Your task to perform on an android device: toggle notifications settings in the gmail app Image 0: 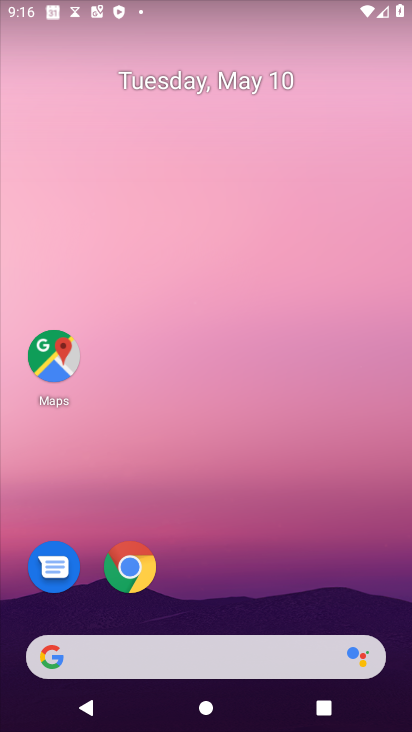
Step 0: press home button
Your task to perform on an android device: toggle notifications settings in the gmail app Image 1: 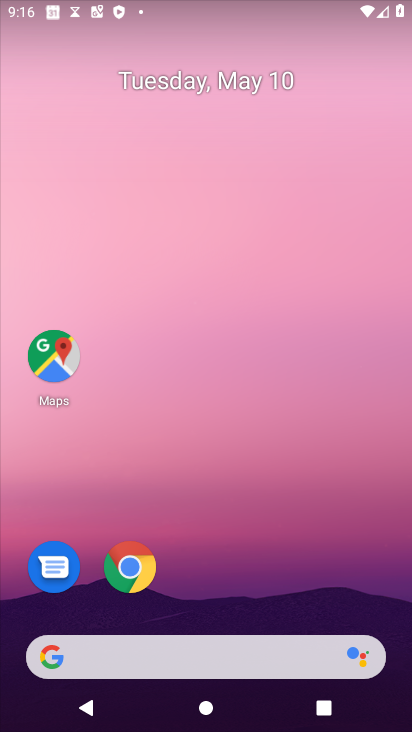
Step 1: drag from (21, 340) to (178, 163)
Your task to perform on an android device: toggle notifications settings in the gmail app Image 2: 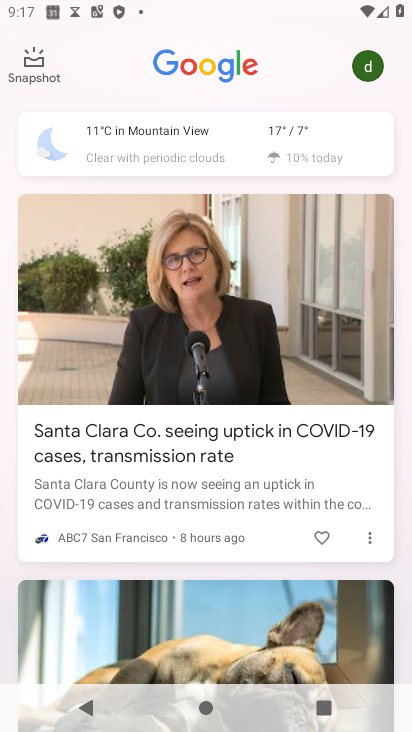
Step 2: press home button
Your task to perform on an android device: toggle notifications settings in the gmail app Image 3: 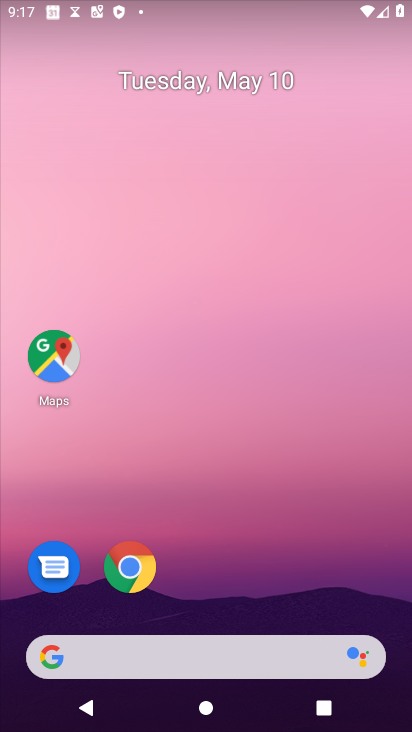
Step 3: drag from (5, 574) to (154, 172)
Your task to perform on an android device: toggle notifications settings in the gmail app Image 4: 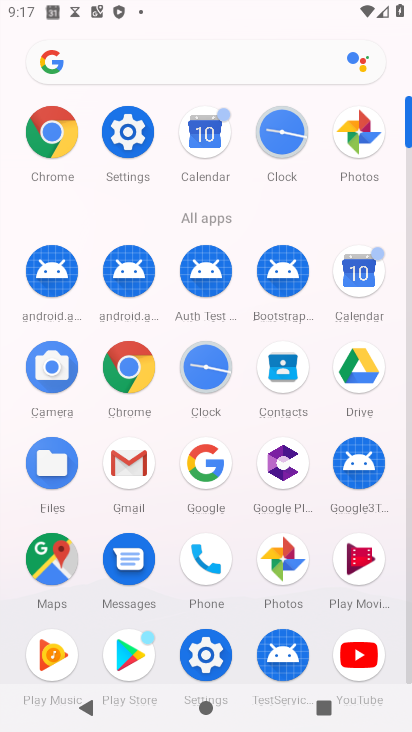
Step 4: click (123, 468)
Your task to perform on an android device: toggle notifications settings in the gmail app Image 5: 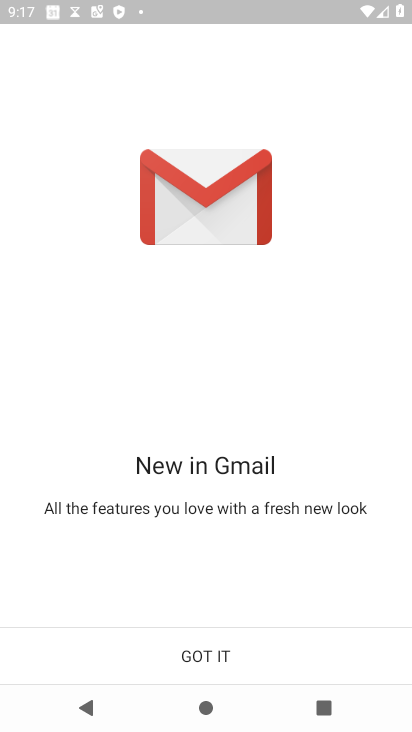
Step 5: click (218, 667)
Your task to perform on an android device: toggle notifications settings in the gmail app Image 6: 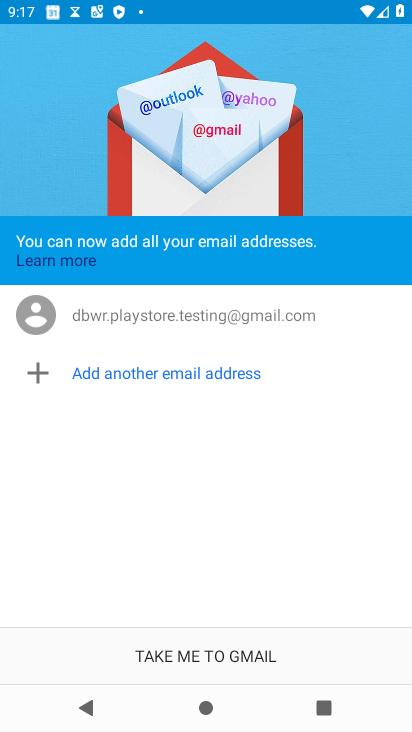
Step 6: click (185, 651)
Your task to perform on an android device: toggle notifications settings in the gmail app Image 7: 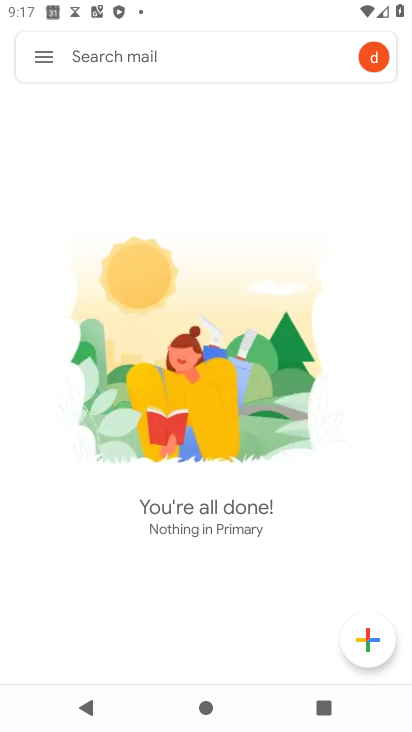
Step 7: click (38, 52)
Your task to perform on an android device: toggle notifications settings in the gmail app Image 8: 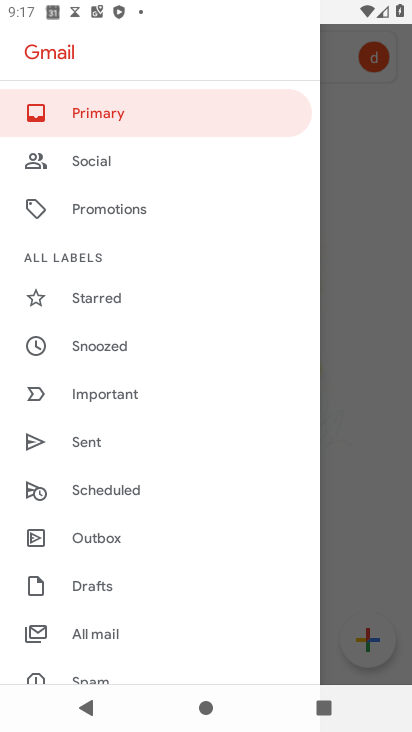
Step 8: drag from (105, 657) to (158, 157)
Your task to perform on an android device: toggle notifications settings in the gmail app Image 9: 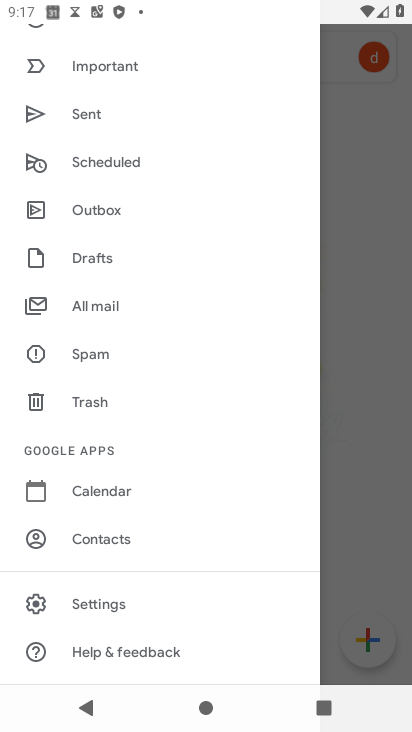
Step 9: click (85, 596)
Your task to perform on an android device: toggle notifications settings in the gmail app Image 10: 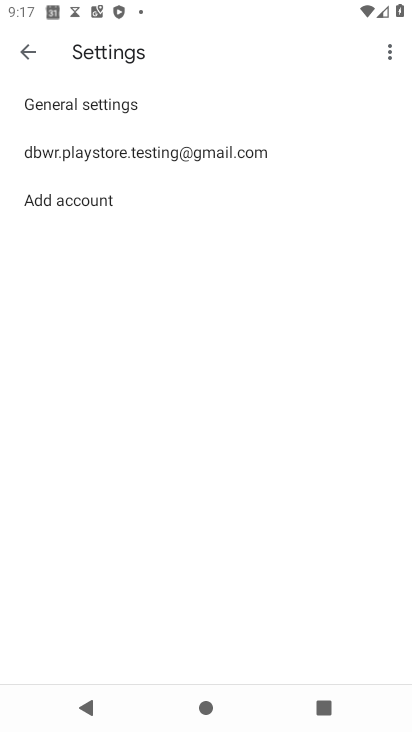
Step 10: click (173, 148)
Your task to perform on an android device: toggle notifications settings in the gmail app Image 11: 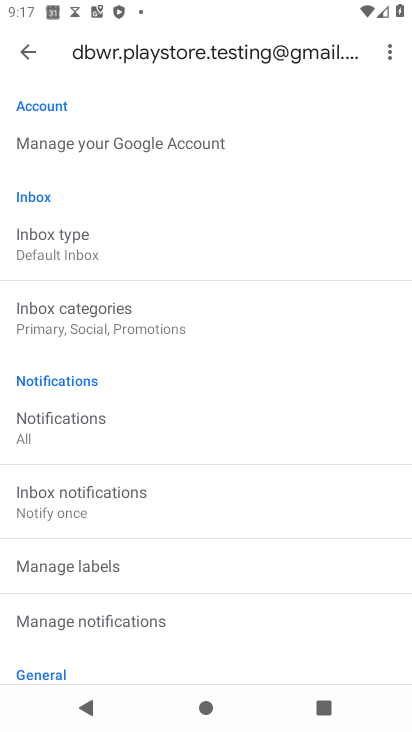
Step 11: click (90, 620)
Your task to perform on an android device: toggle notifications settings in the gmail app Image 12: 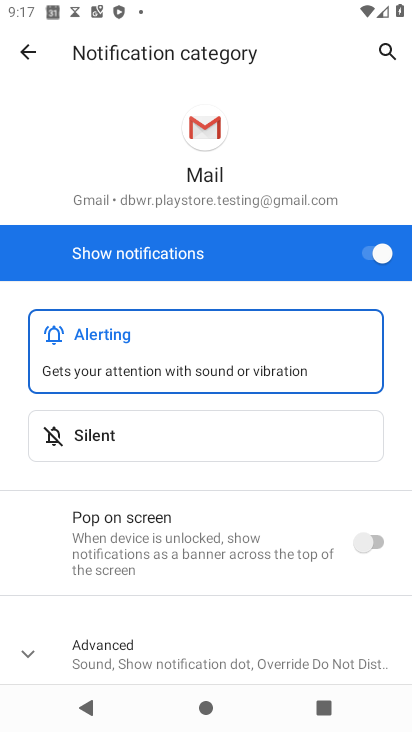
Step 12: click (373, 261)
Your task to perform on an android device: toggle notifications settings in the gmail app Image 13: 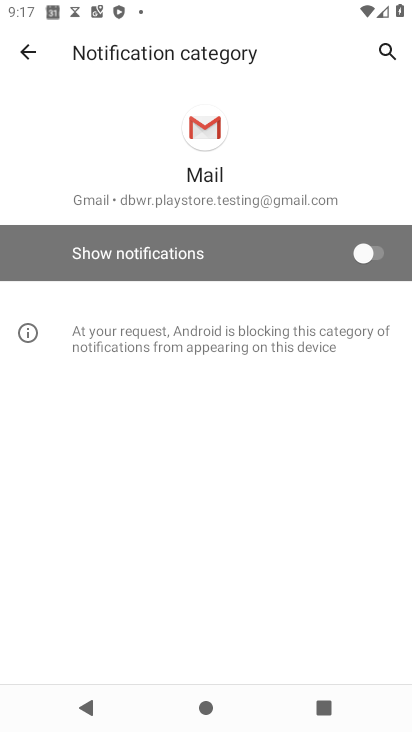
Step 13: task complete